Your task to perform on an android device: Go to calendar. Show me events next week Image 0: 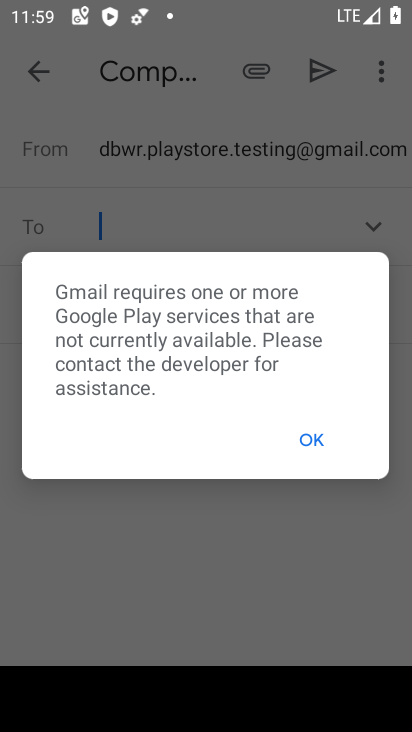
Step 0: click (313, 443)
Your task to perform on an android device: Go to calendar. Show me events next week Image 1: 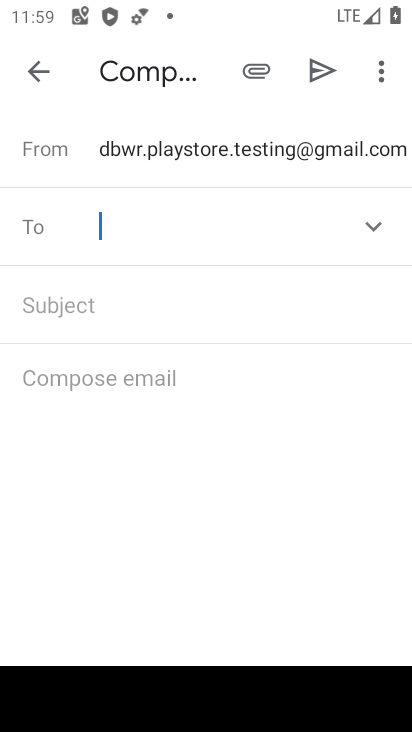
Step 1: press back button
Your task to perform on an android device: Go to calendar. Show me events next week Image 2: 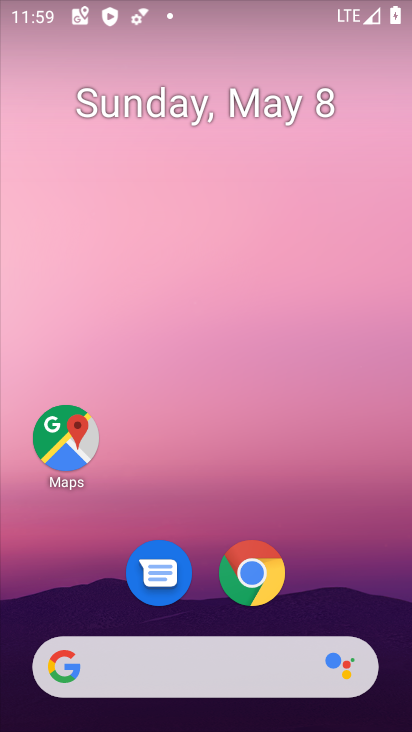
Step 2: drag from (339, 567) to (217, 17)
Your task to perform on an android device: Go to calendar. Show me events next week Image 3: 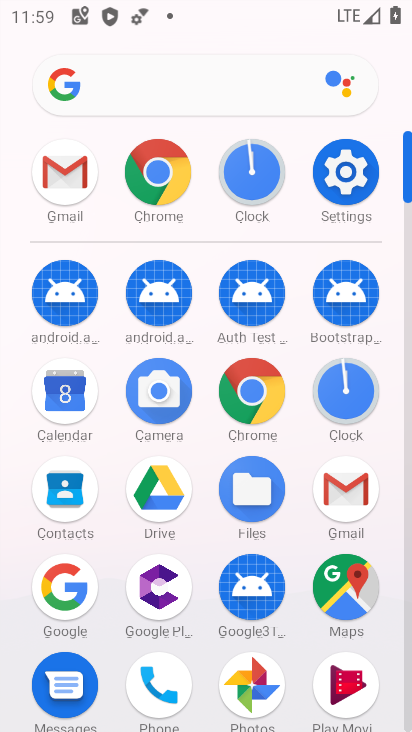
Step 3: drag from (13, 541) to (14, 205)
Your task to perform on an android device: Go to calendar. Show me events next week Image 4: 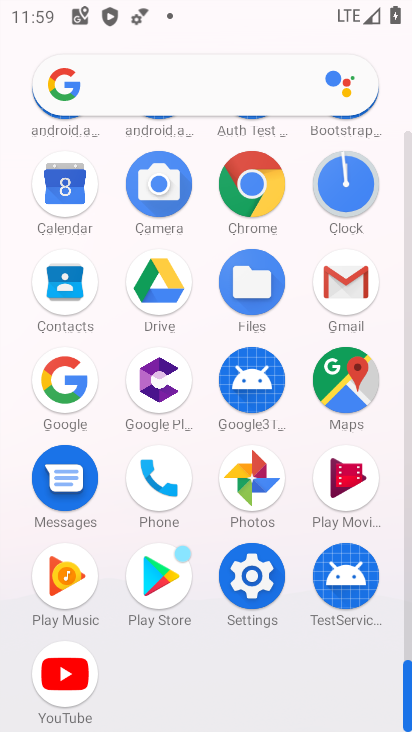
Step 4: click (64, 182)
Your task to perform on an android device: Go to calendar. Show me events next week Image 5: 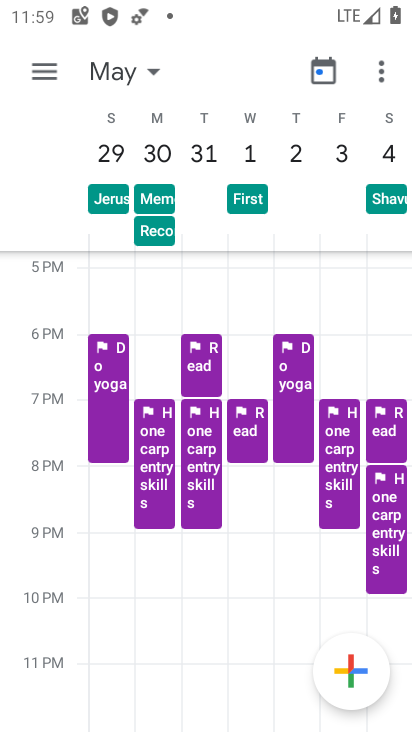
Step 5: click (119, 74)
Your task to perform on an android device: Go to calendar. Show me events next week Image 6: 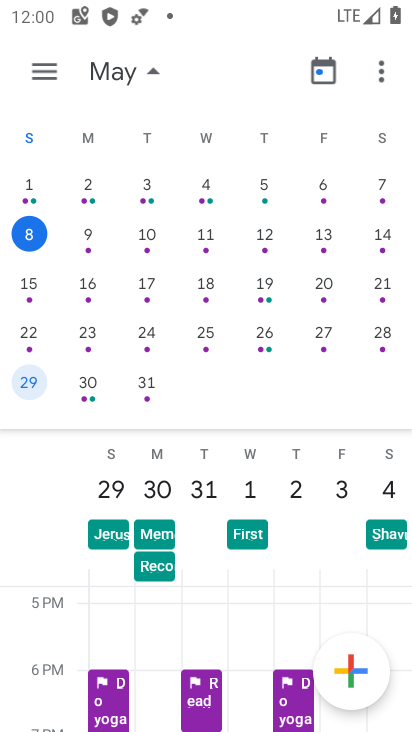
Step 6: click (320, 67)
Your task to perform on an android device: Go to calendar. Show me events next week Image 7: 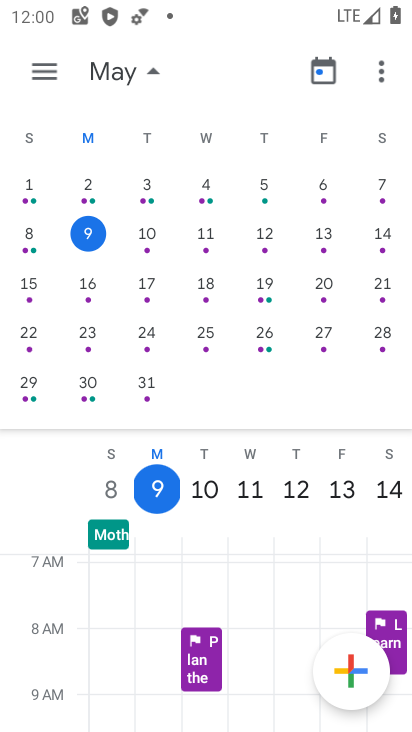
Step 7: click (38, 69)
Your task to perform on an android device: Go to calendar. Show me events next week Image 8: 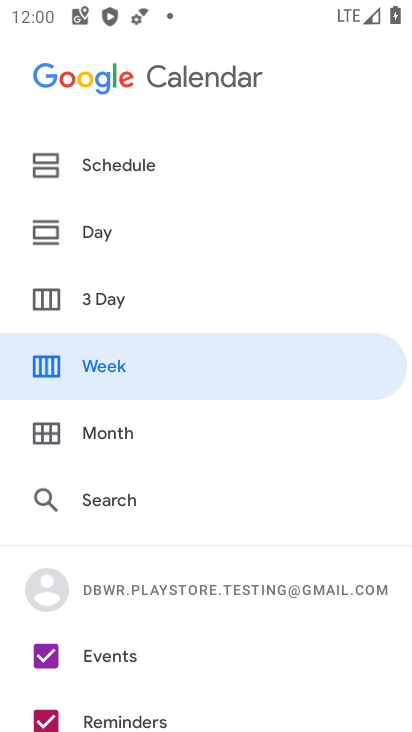
Step 8: click (101, 367)
Your task to perform on an android device: Go to calendar. Show me events next week Image 9: 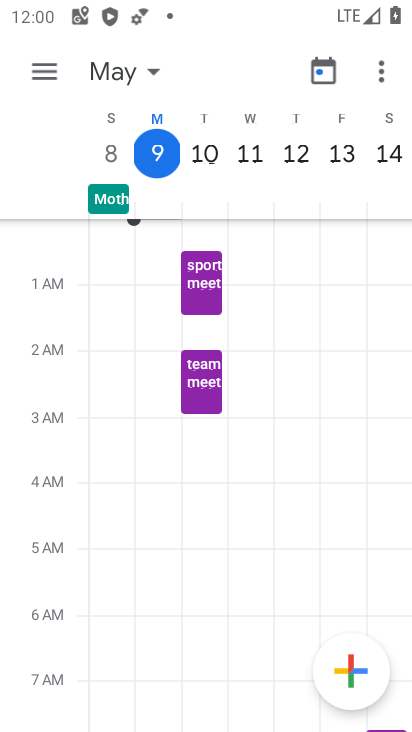
Step 9: task complete